Your task to perform on an android device: What's the weather today? Image 0: 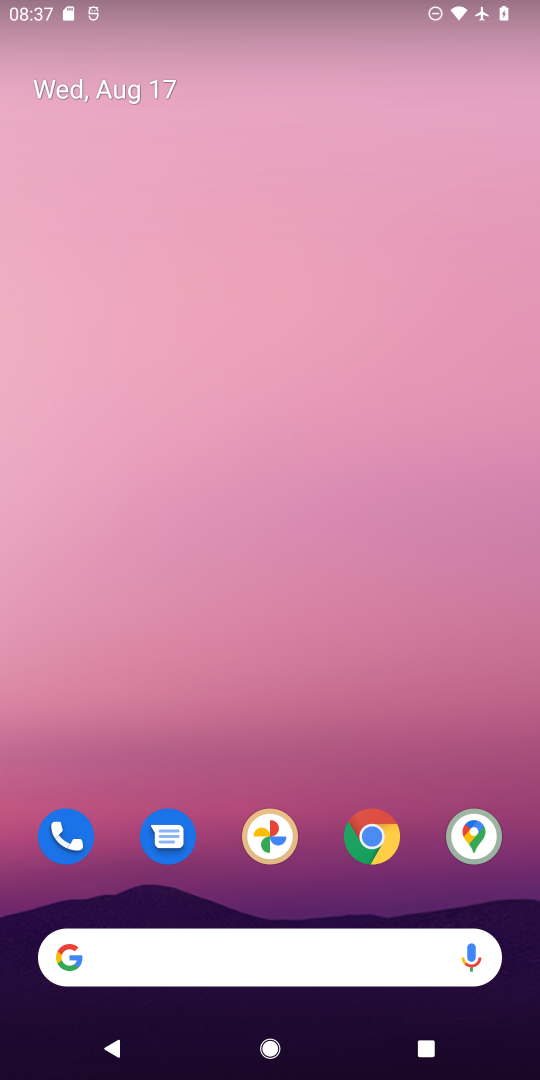
Step 0: drag from (276, 668) to (269, 332)
Your task to perform on an android device: What's the weather today? Image 1: 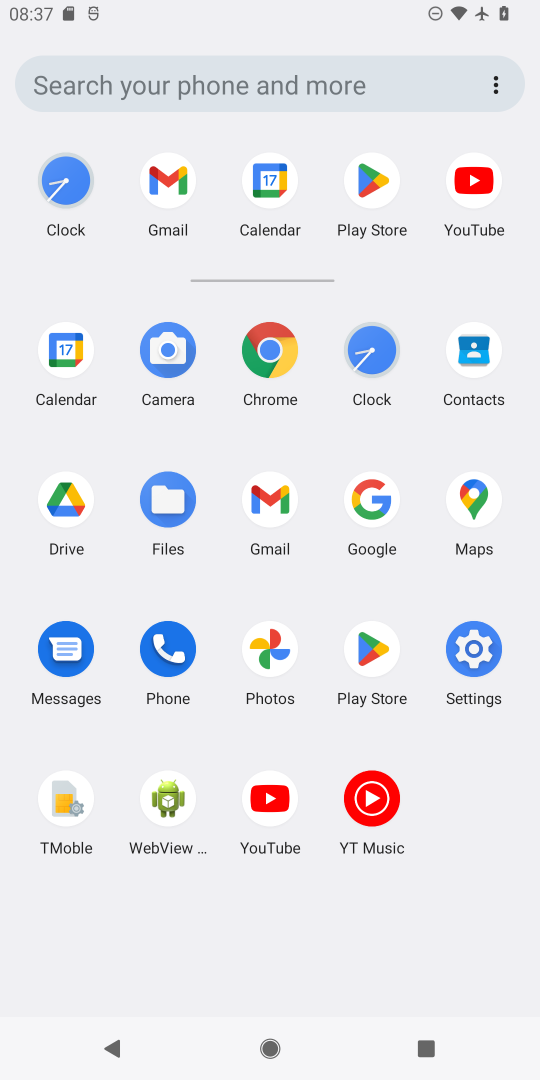
Step 1: click (277, 355)
Your task to perform on an android device: What's the weather today? Image 2: 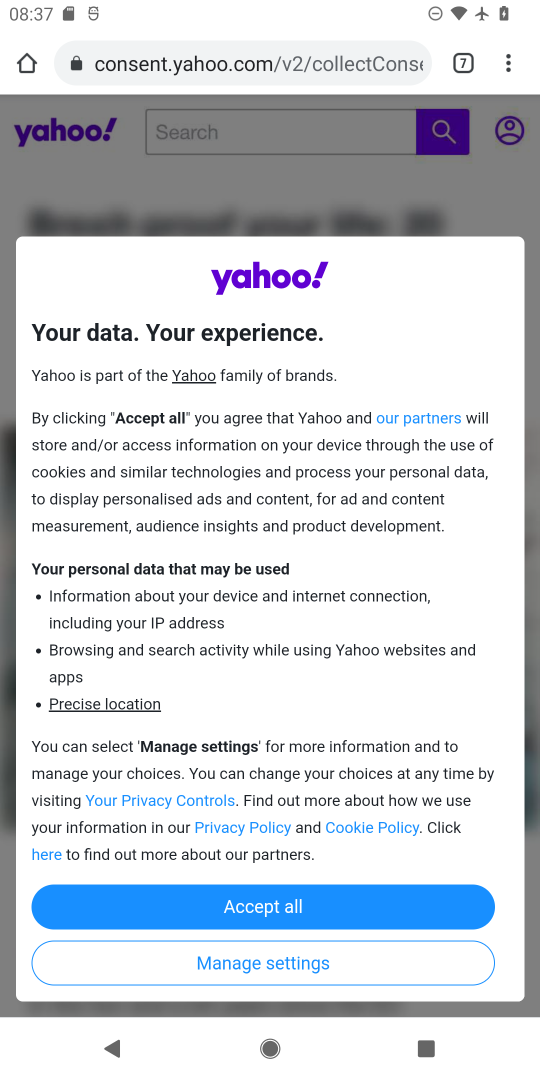
Step 2: click (503, 70)
Your task to perform on an android device: What's the weather today? Image 3: 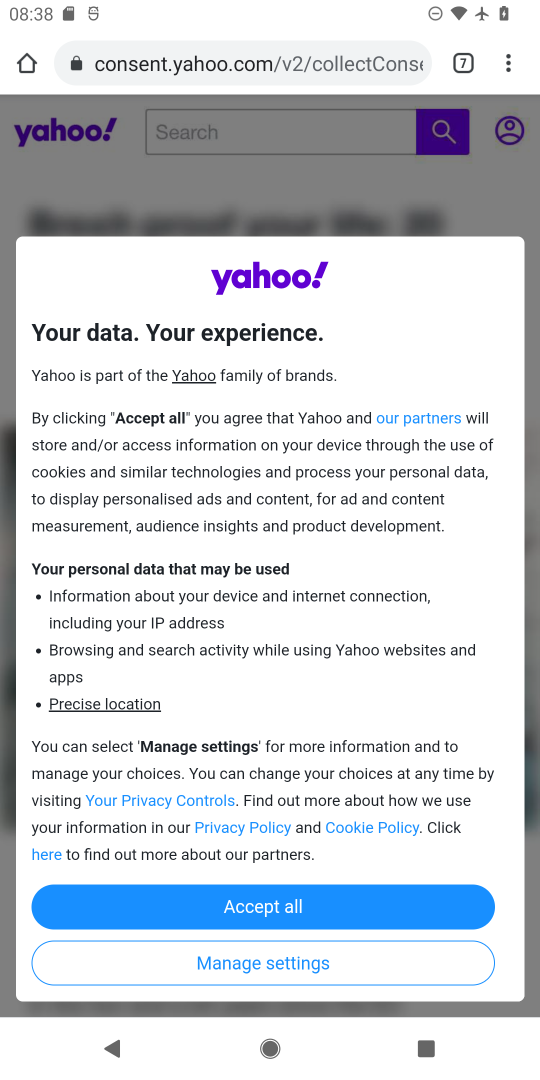
Step 3: click (486, 55)
Your task to perform on an android device: What's the weather today? Image 4: 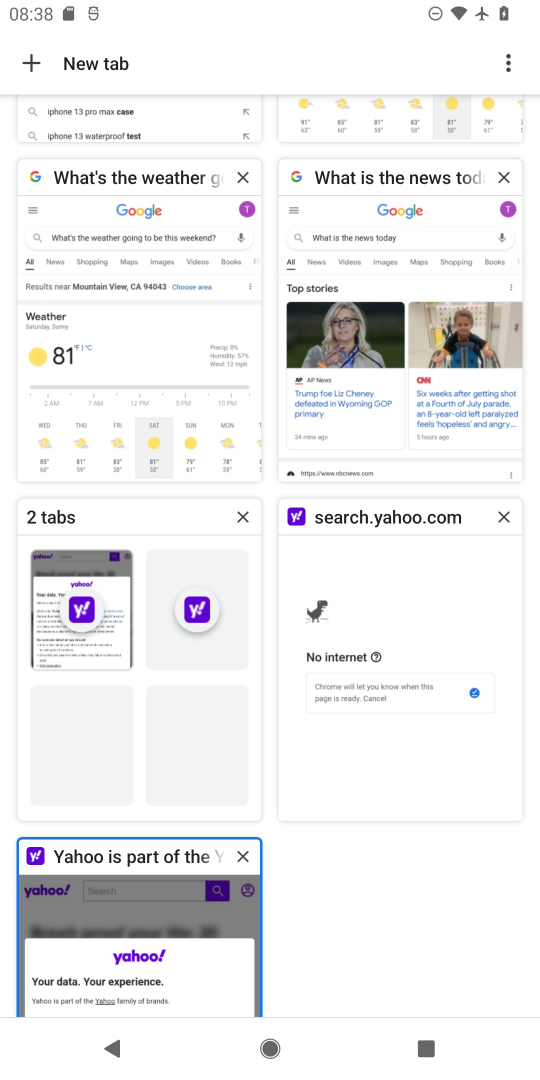
Step 4: click (21, 55)
Your task to perform on an android device: What's the weather today? Image 5: 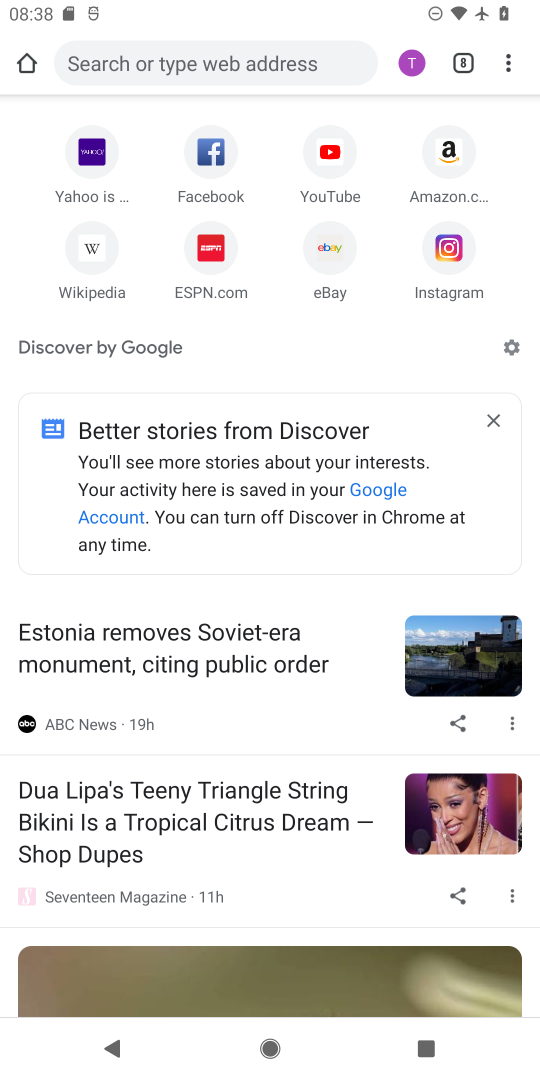
Step 5: click (232, 64)
Your task to perform on an android device: What's the weather today? Image 6: 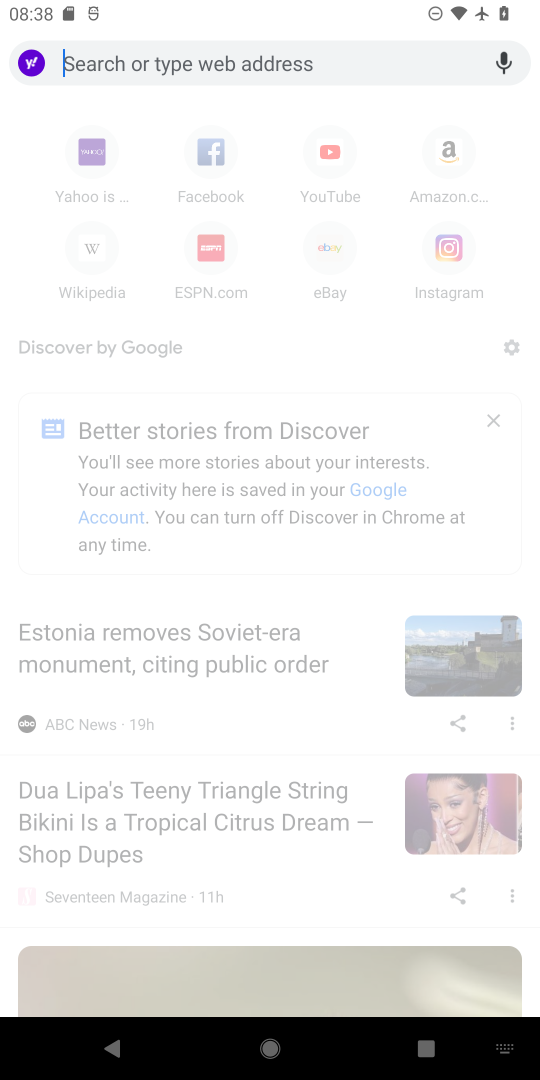
Step 6: type "What's the weather today? "
Your task to perform on an android device: What's the weather today? Image 7: 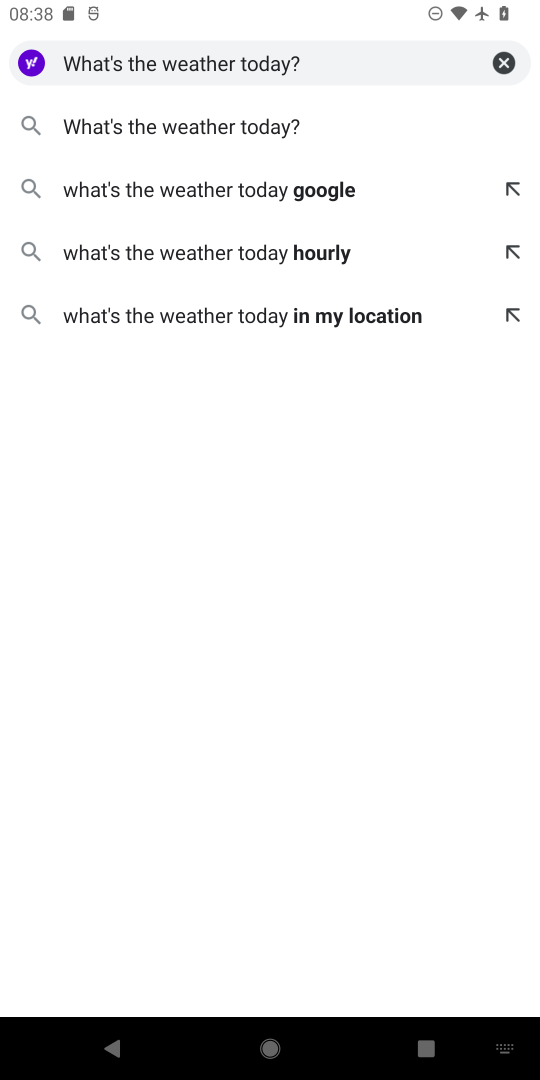
Step 7: click (276, 130)
Your task to perform on an android device: What's the weather today? Image 8: 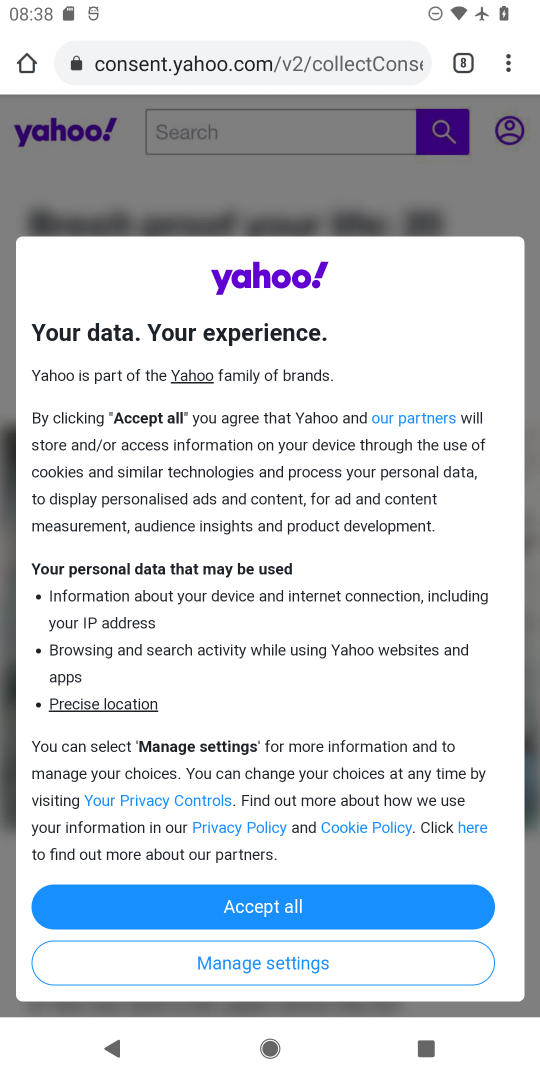
Step 8: click (509, 60)
Your task to perform on an android device: What's the weather today? Image 9: 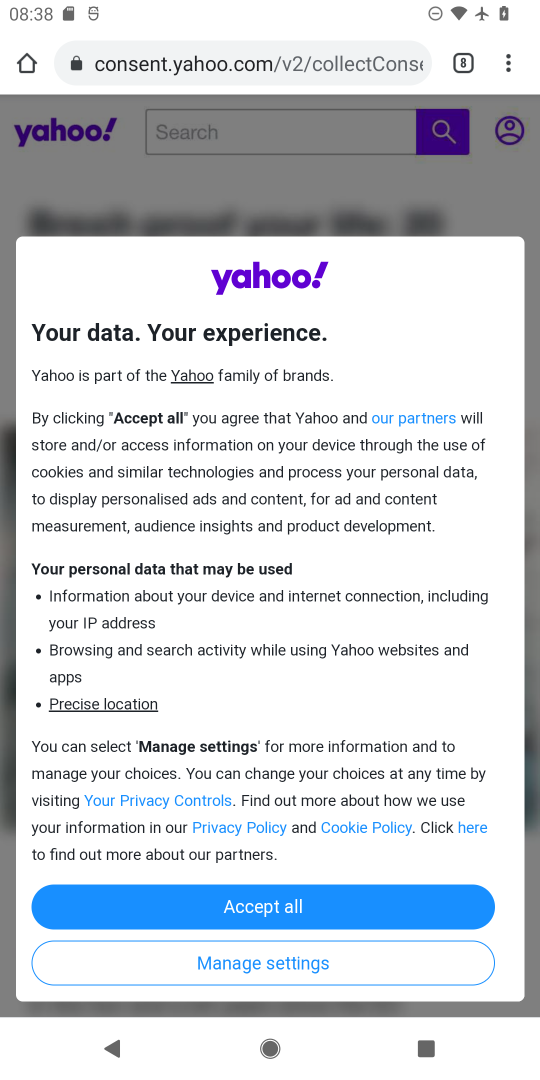
Step 9: click (499, 61)
Your task to perform on an android device: What's the weather today? Image 10: 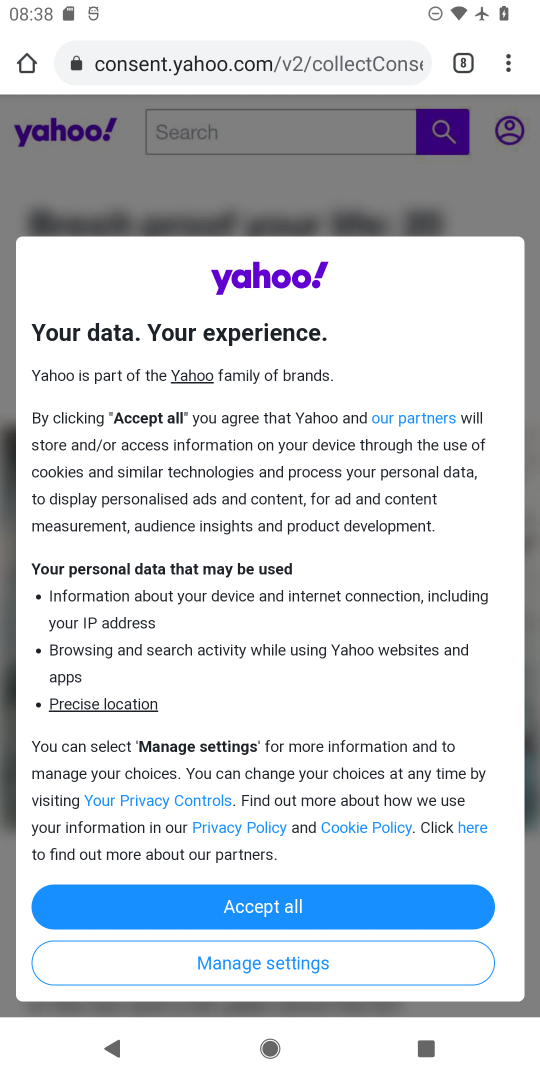
Step 10: click (499, 61)
Your task to perform on an android device: What's the weather today? Image 11: 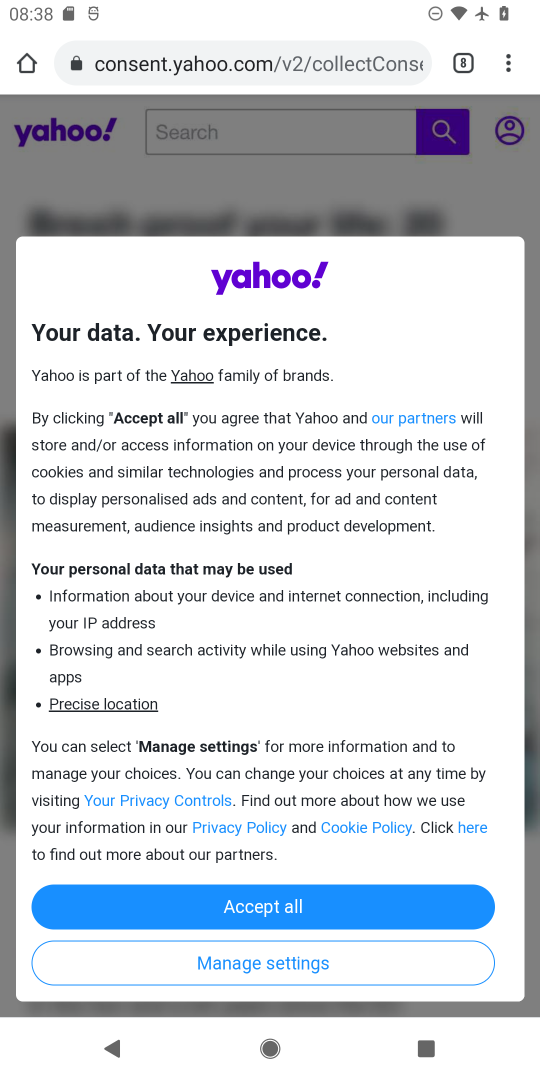
Step 11: click (499, 70)
Your task to perform on an android device: What's the weather today? Image 12: 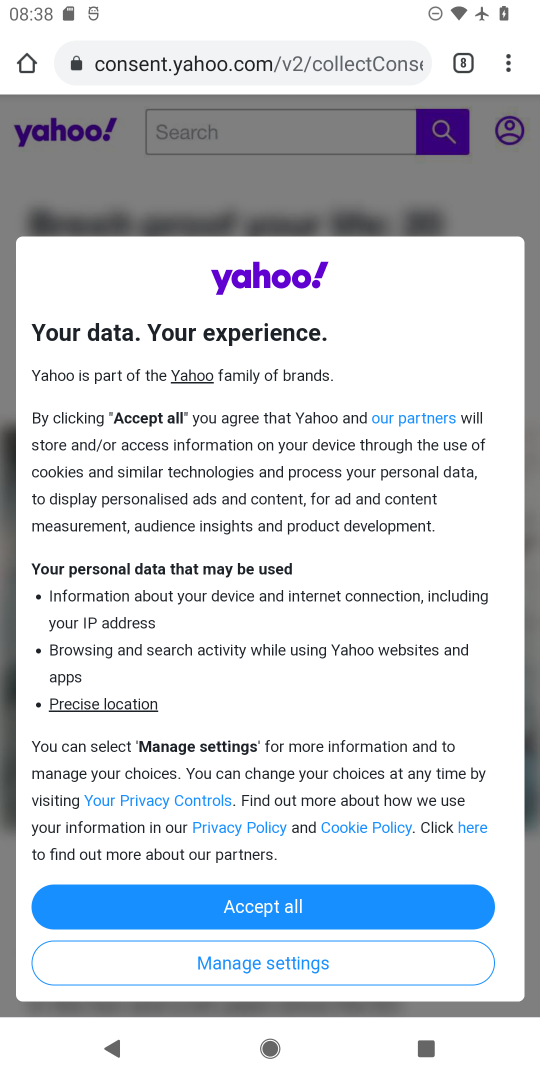
Step 12: click (499, 70)
Your task to perform on an android device: What's the weather today? Image 13: 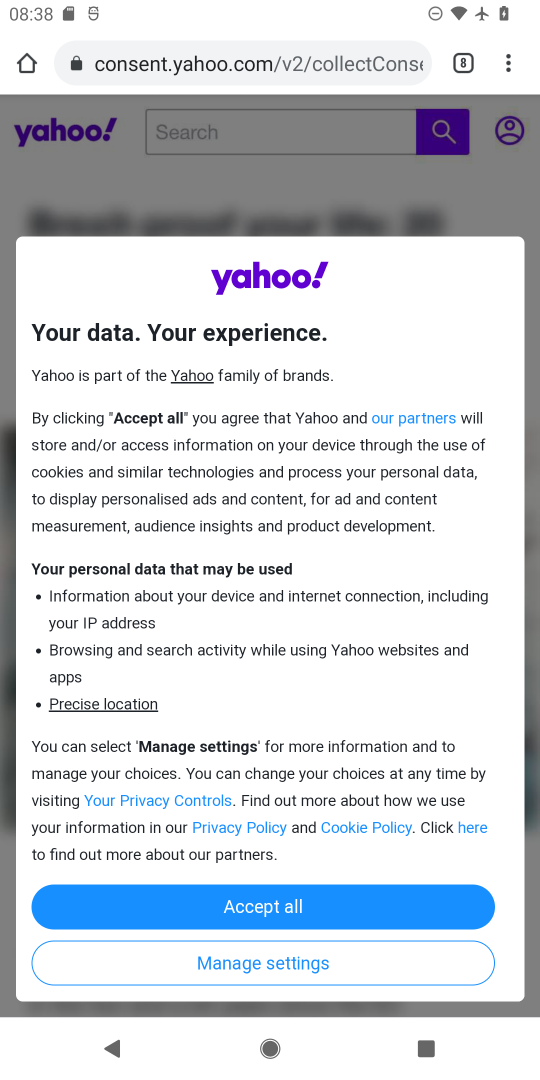
Step 13: click (499, 70)
Your task to perform on an android device: What's the weather today? Image 14: 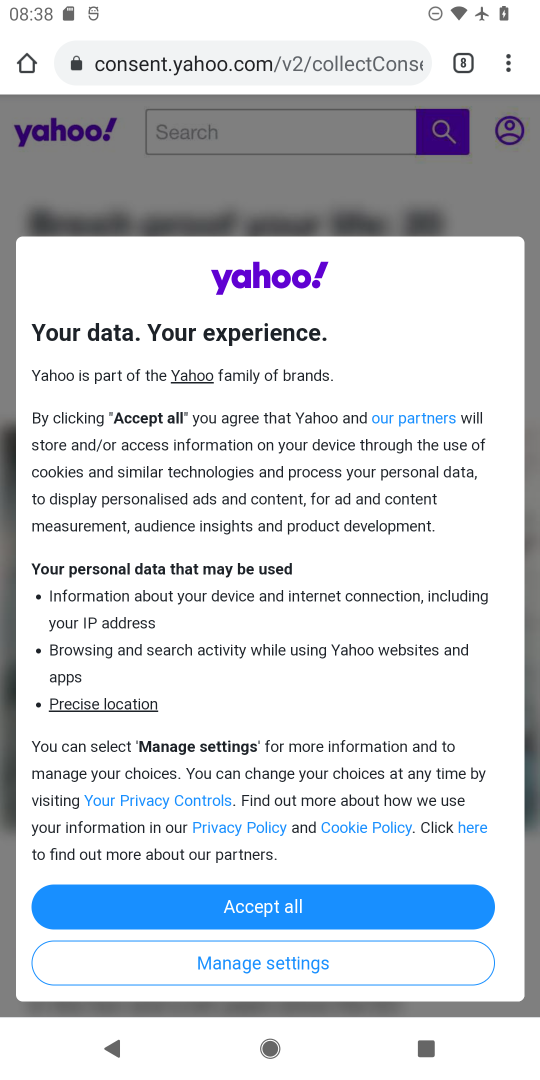
Step 14: click (499, 70)
Your task to perform on an android device: What's the weather today? Image 15: 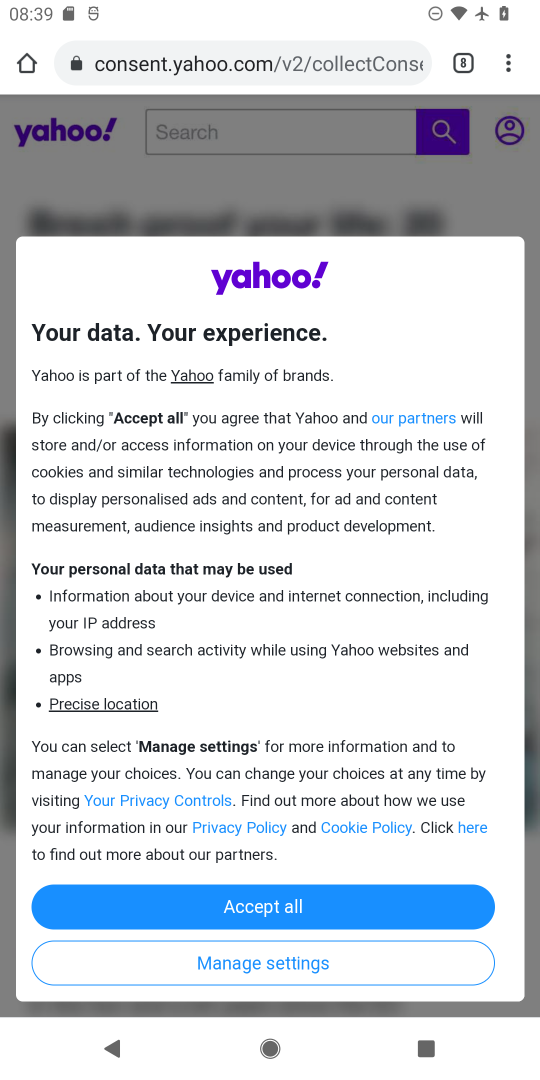
Step 15: click (499, 70)
Your task to perform on an android device: What's the weather today? Image 16: 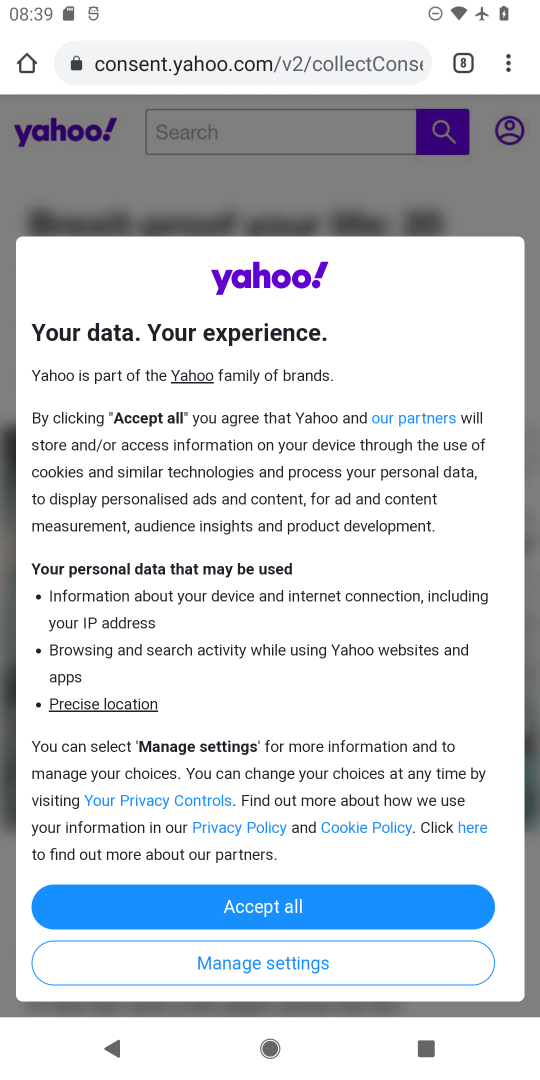
Step 16: click (499, 70)
Your task to perform on an android device: What's the weather today? Image 17: 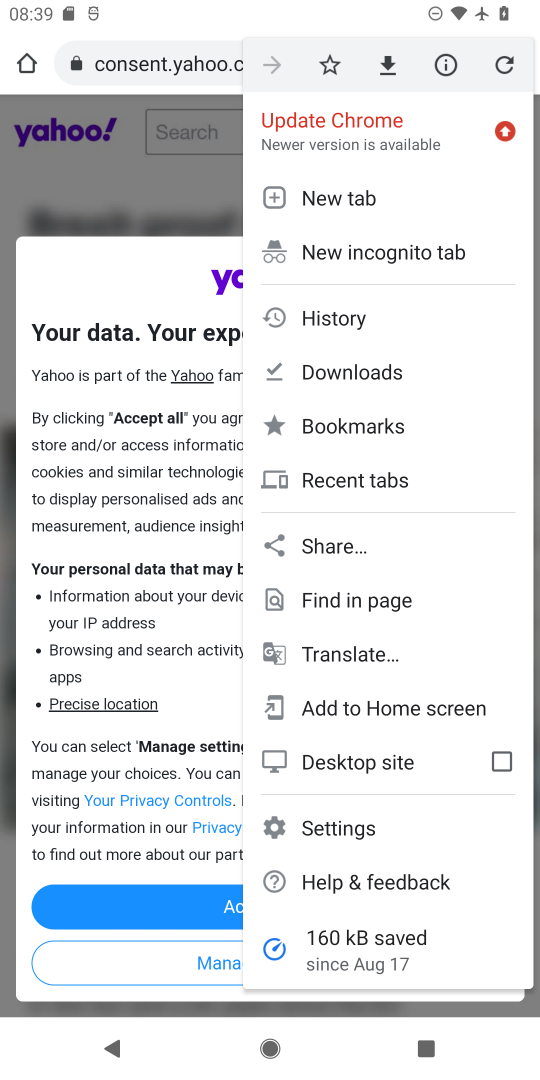
Step 17: click (335, 178)
Your task to perform on an android device: What's the weather today? Image 18: 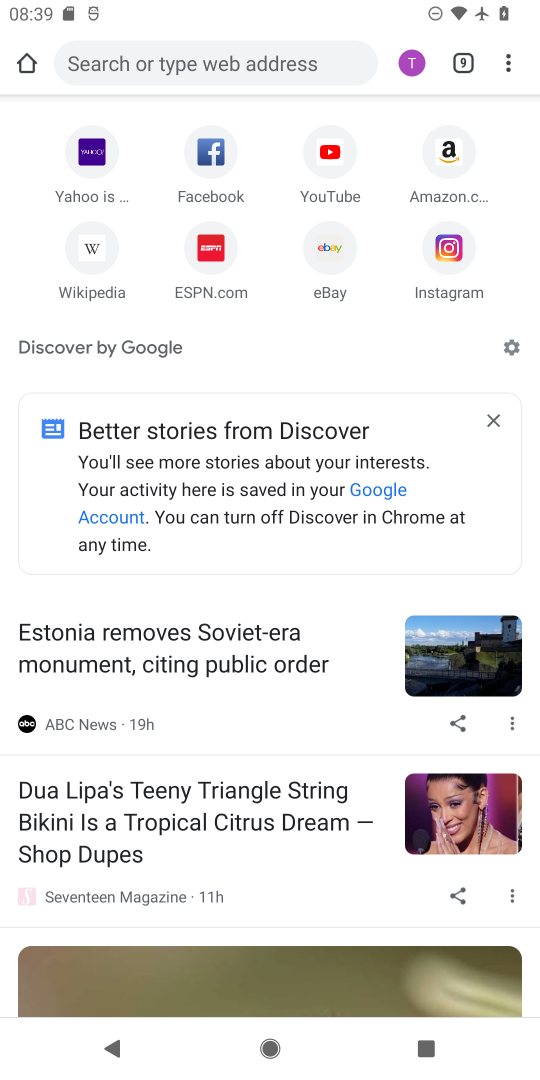
Step 18: click (248, 50)
Your task to perform on an android device: What's the weather today? Image 19: 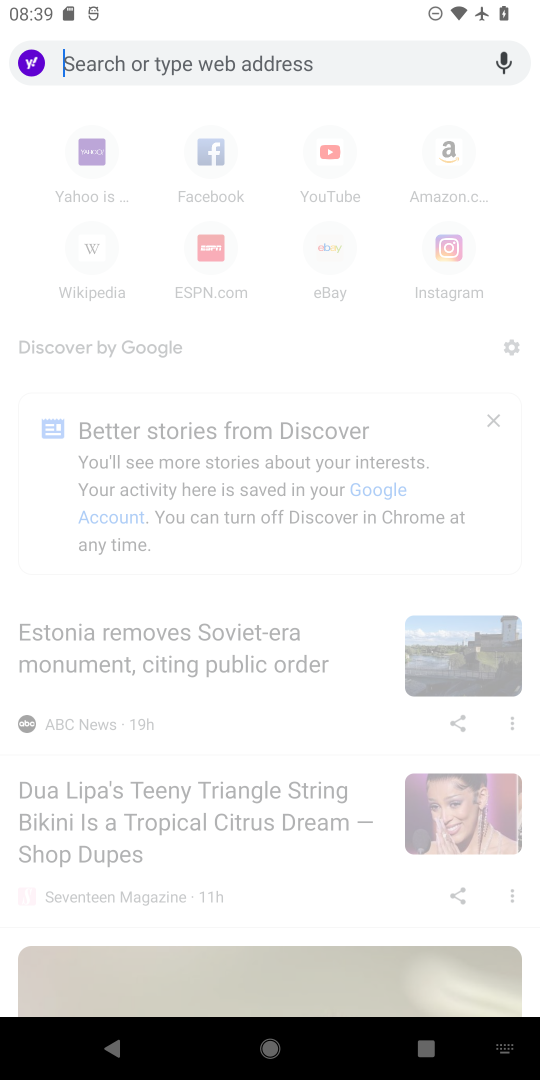
Step 19: type "What's the weather today? "
Your task to perform on an android device: What's the weather today? Image 20: 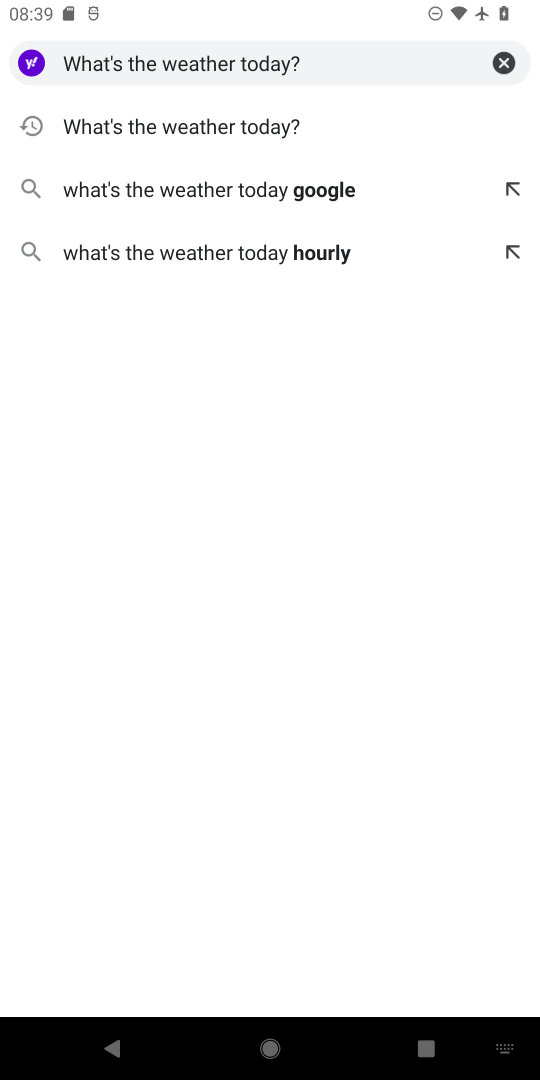
Step 20: click (233, 119)
Your task to perform on an android device: What's the weather today? Image 21: 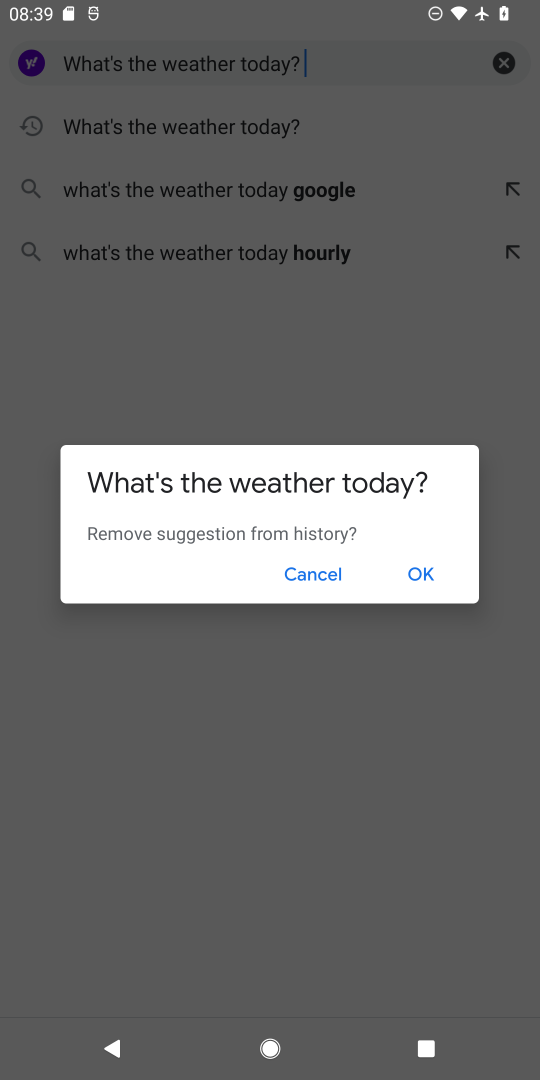
Step 21: click (430, 578)
Your task to perform on an android device: What's the weather today? Image 22: 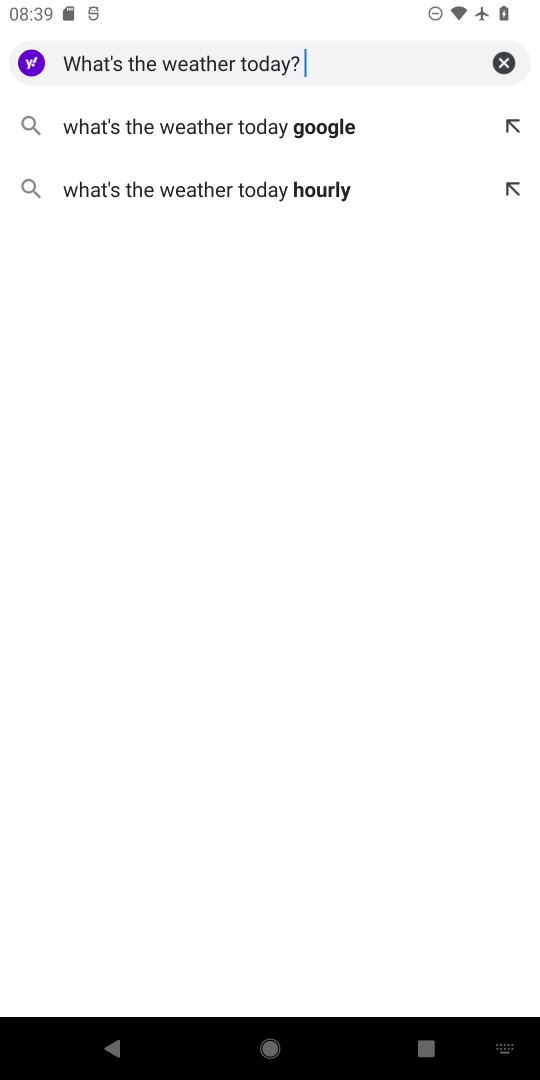
Step 22: click (271, 122)
Your task to perform on an android device: What's the weather today? Image 23: 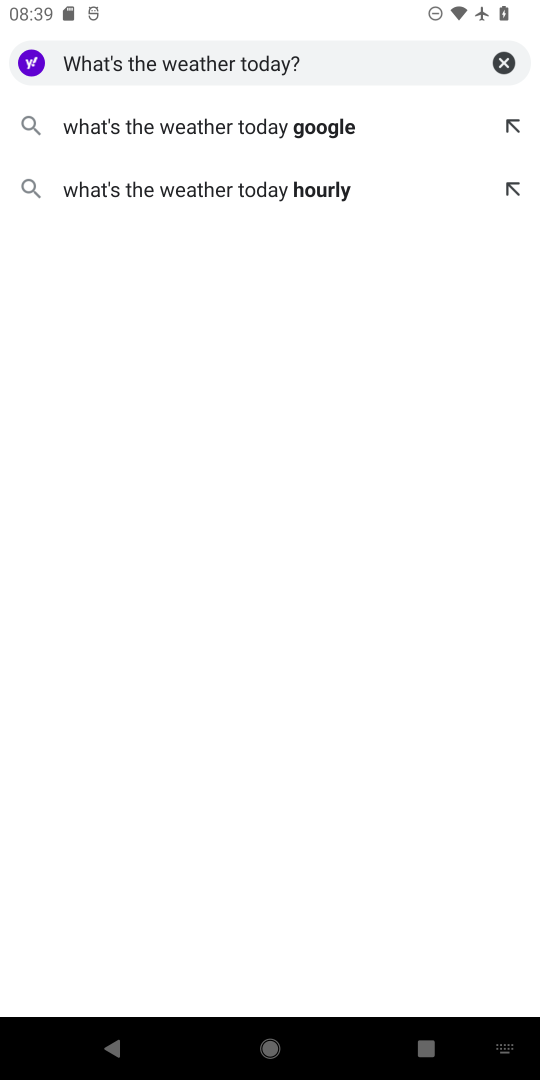
Step 23: click (237, 129)
Your task to perform on an android device: What's the weather today? Image 24: 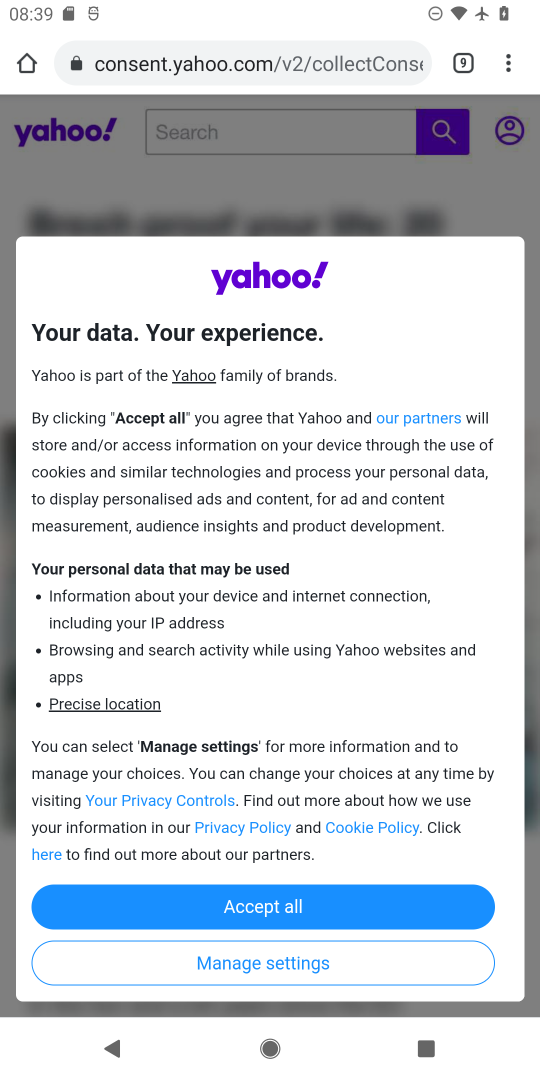
Step 24: task complete